Your task to perform on an android device: Open Google Chrome Image 0: 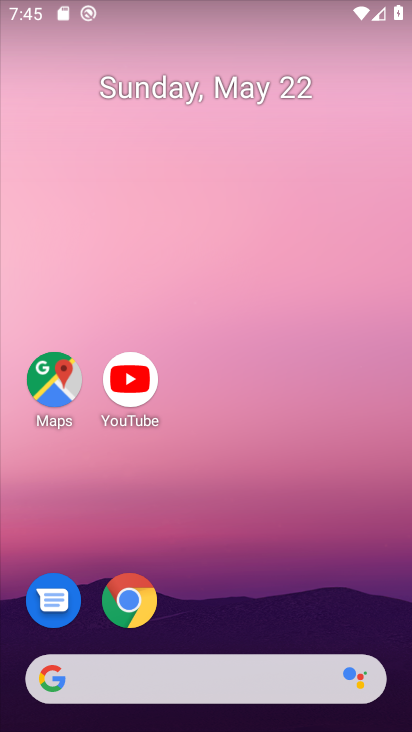
Step 0: click (210, 554)
Your task to perform on an android device: Open Google Chrome Image 1: 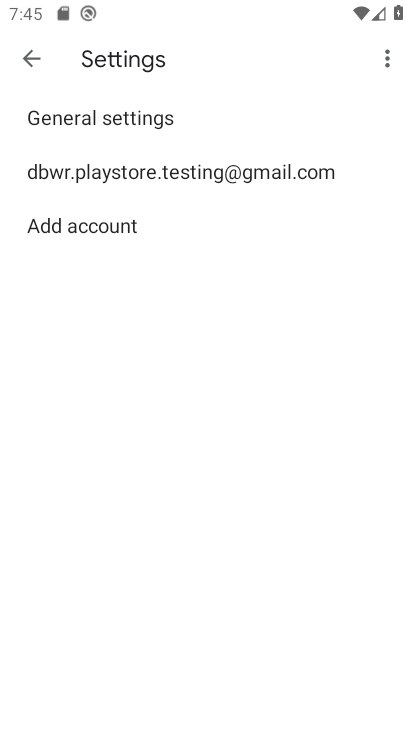
Step 1: task complete